Your task to perform on an android device: toggle notification dots Image 0: 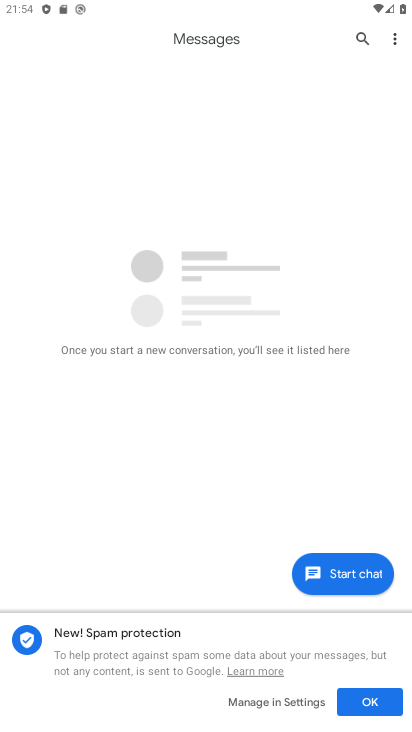
Step 0: press home button
Your task to perform on an android device: toggle notification dots Image 1: 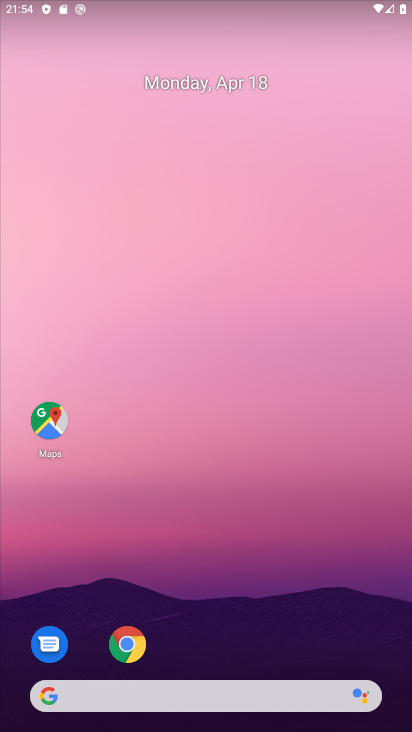
Step 1: drag from (209, 565) to (303, 58)
Your task to perform on an android device: toggle notification dots Image 2: 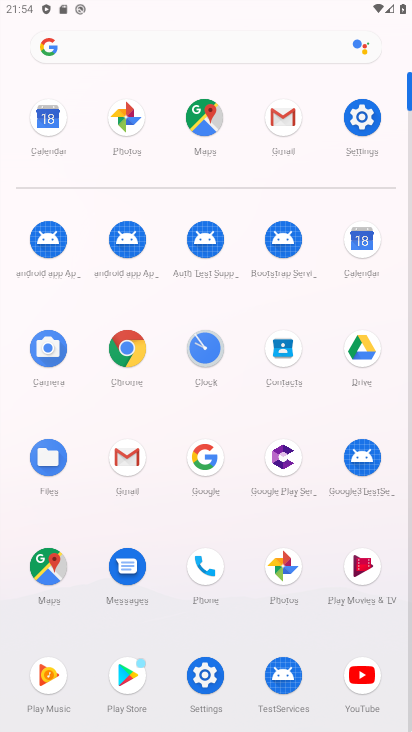
Step 2: click (365, 117)
Your task to perform on an android device: toggle notification dots Image 3: 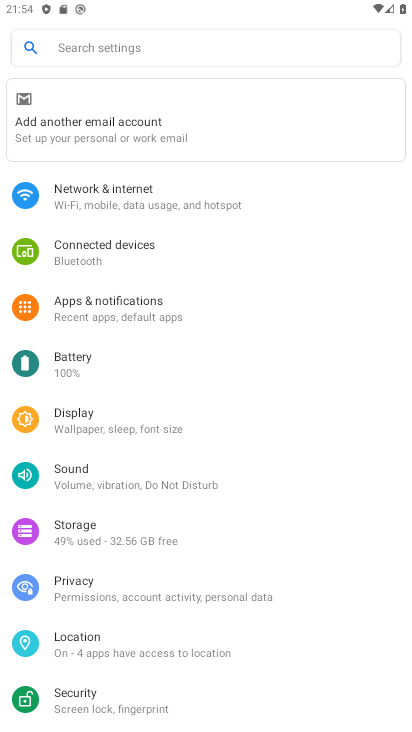
Step 3: click (154, 309)
Your task to perform on an android device: toggle notification dots Image 4: 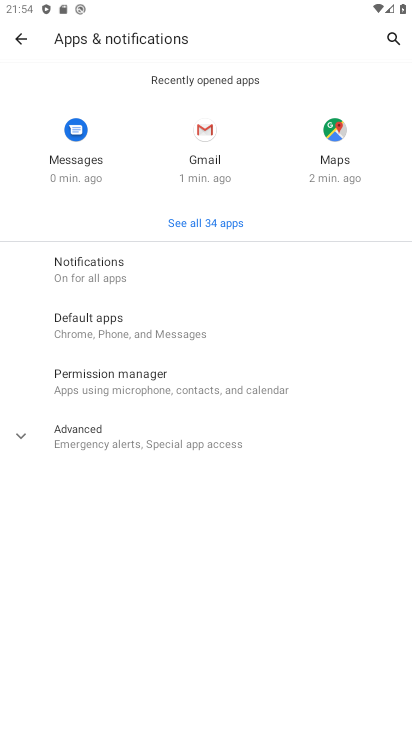
Step 4: click (111, 274)
Your task to perform on an android device: toggle notification dots Image 5: 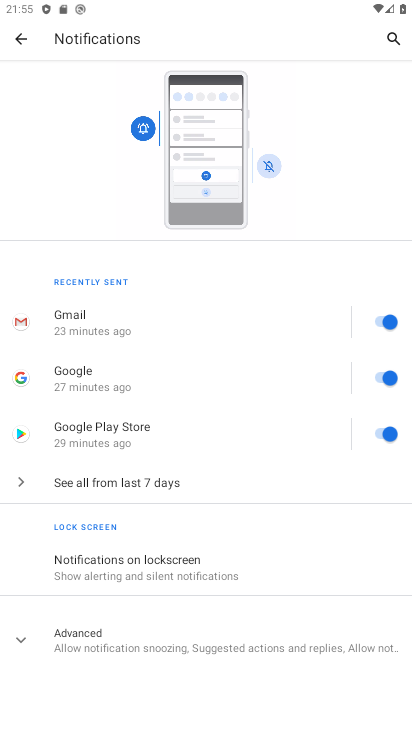
Step 5: click (161, 643)
Your task to perform on an android device: toggle notification dots Image 6: 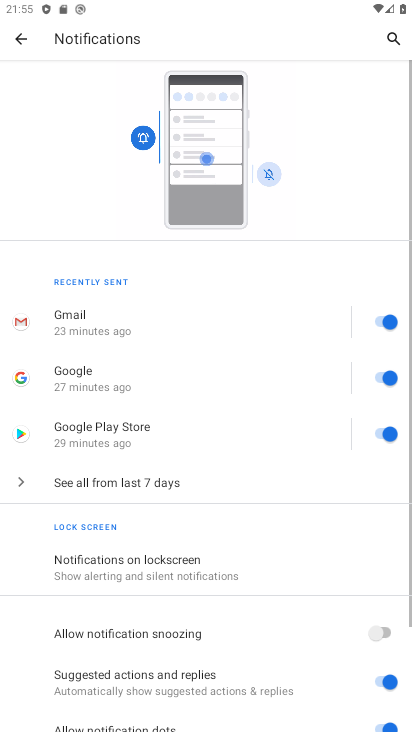
Step 6: drag from (166, 629) to (228, 357)
Your task to perform on an android device: toggle notification dots Image 7: 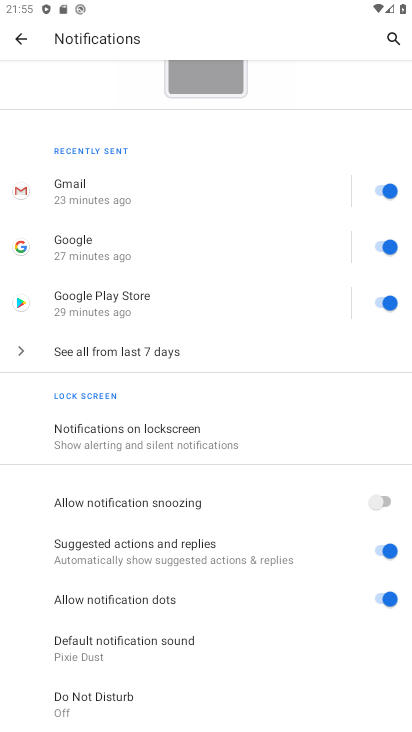
Step 7: click (385, 594)
Your task to perform on an android device: toggle notification dots Image 8: 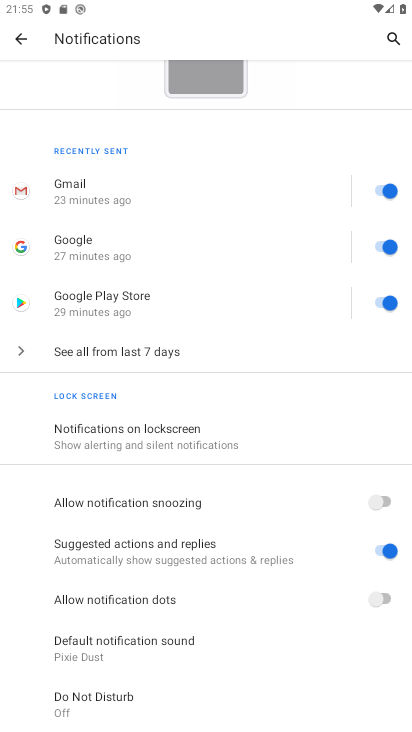
Step 8: task complete